Your task to perform on an android device: toggle priority inbox in the gmail app Image 0: 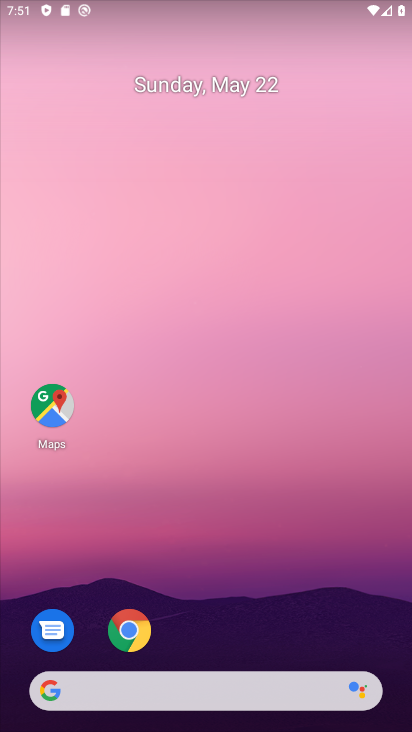
Step 0: drag from (347, 600) to (250, 1)
Your task to perform on an android device: toggle priority inbox in the gmail app Image 1: 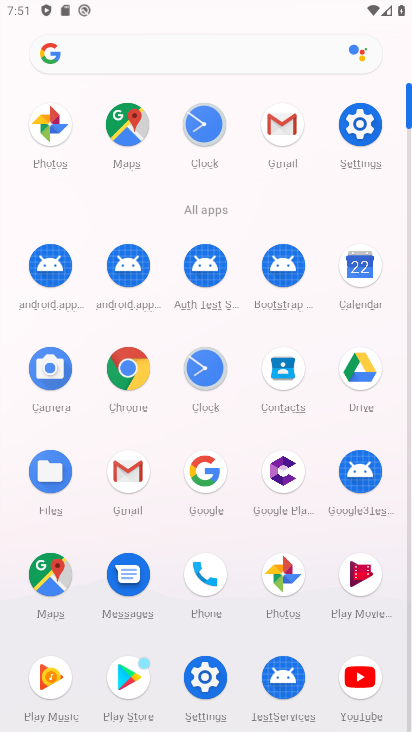
Step 1: click (281, 119)
Your task to perform on an android device: toggle priority inbox in the gmail app Image 2: 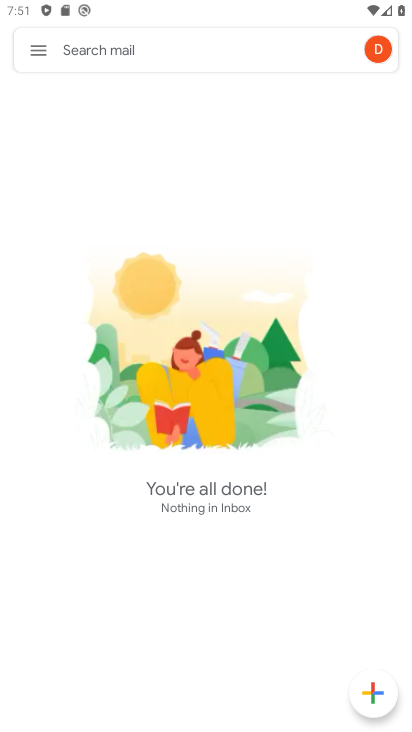
Step 2: click (44, 60)
Your task to perform on an android device: toggle priority inbox in the gmail app Image 3: 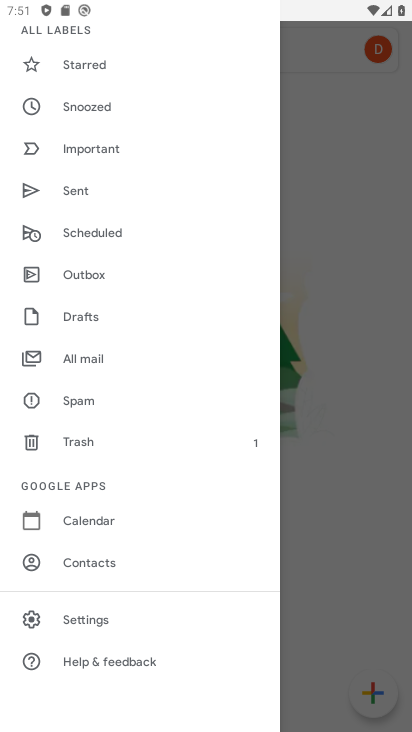
Step 3: click (83, 613)
Your task to perform on an android device: toggle priority inbox in the gmail app Image 4: 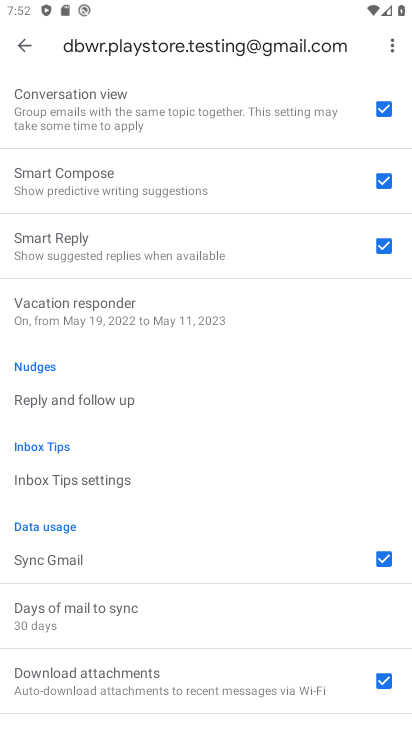
Step 4: drag from (165, 353) to (200, 544)
Your task to perform on an android device: toggle priority inbox in the gmail app Image 5: 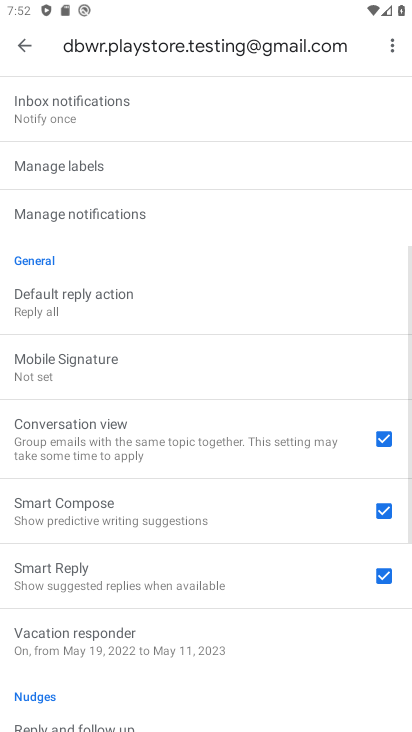
Step 5: drag from (209, 265) to (200, 593)
Your task to perform on an android device: toggle priority inbox in the gmail app Image 6: 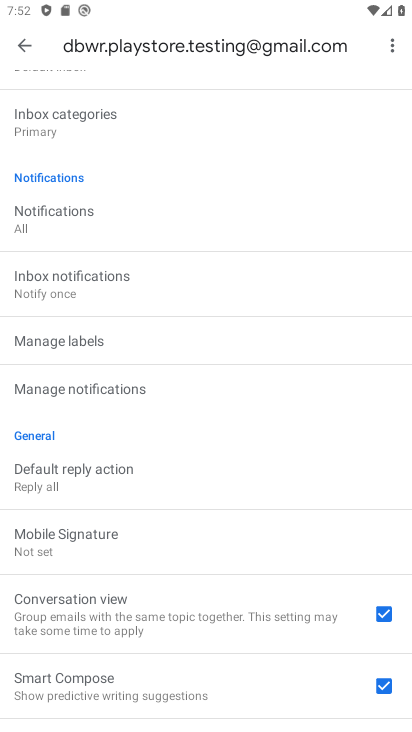
Step 6: drag from (174, 201) to (180, 472)
Your task to perform on an android device: toggle priority inbox in the gmail app Image 7: 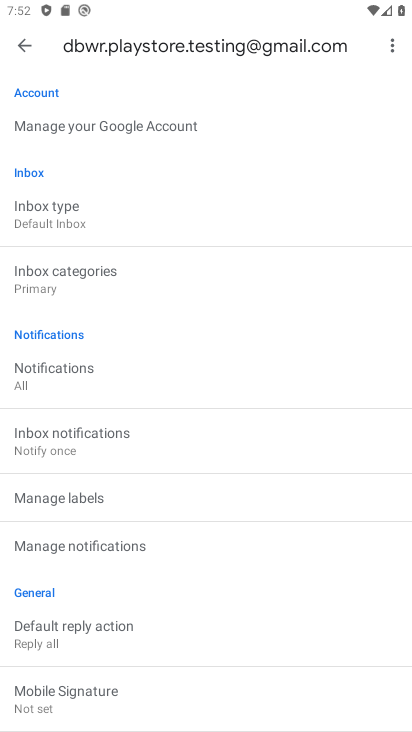
Step 7: click (119, 202)
Your task to perform on an android device: toggle priority inbox in the gmail app Image 8: 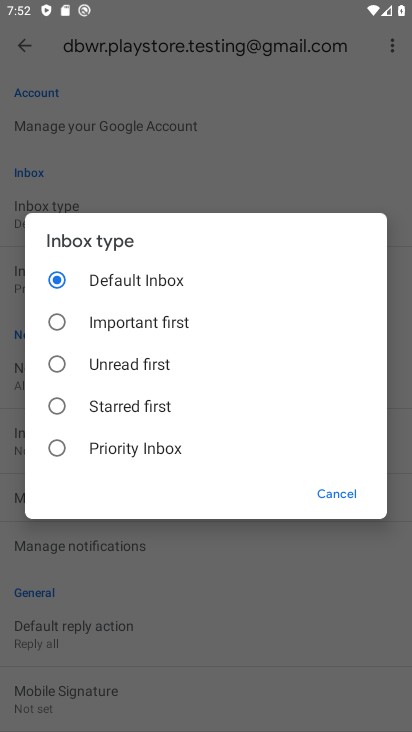
Step 8: click (136, 457)
Your task to perform on an android device: toggle priority inbox in the gmail app Image 9: 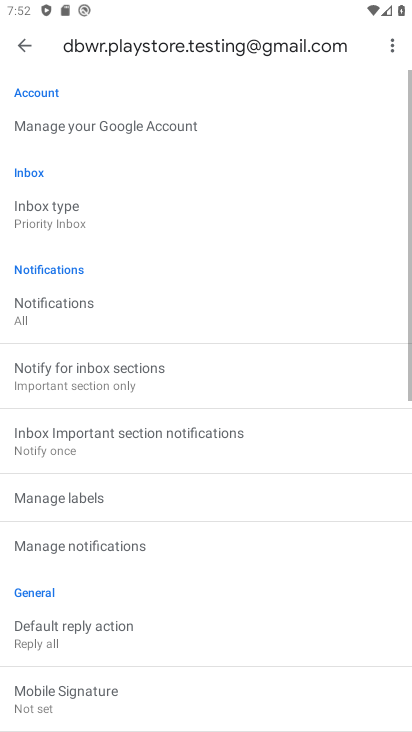
Step 9: task complete